Your task to perform on an android device: turn on sleep mode Image 0: 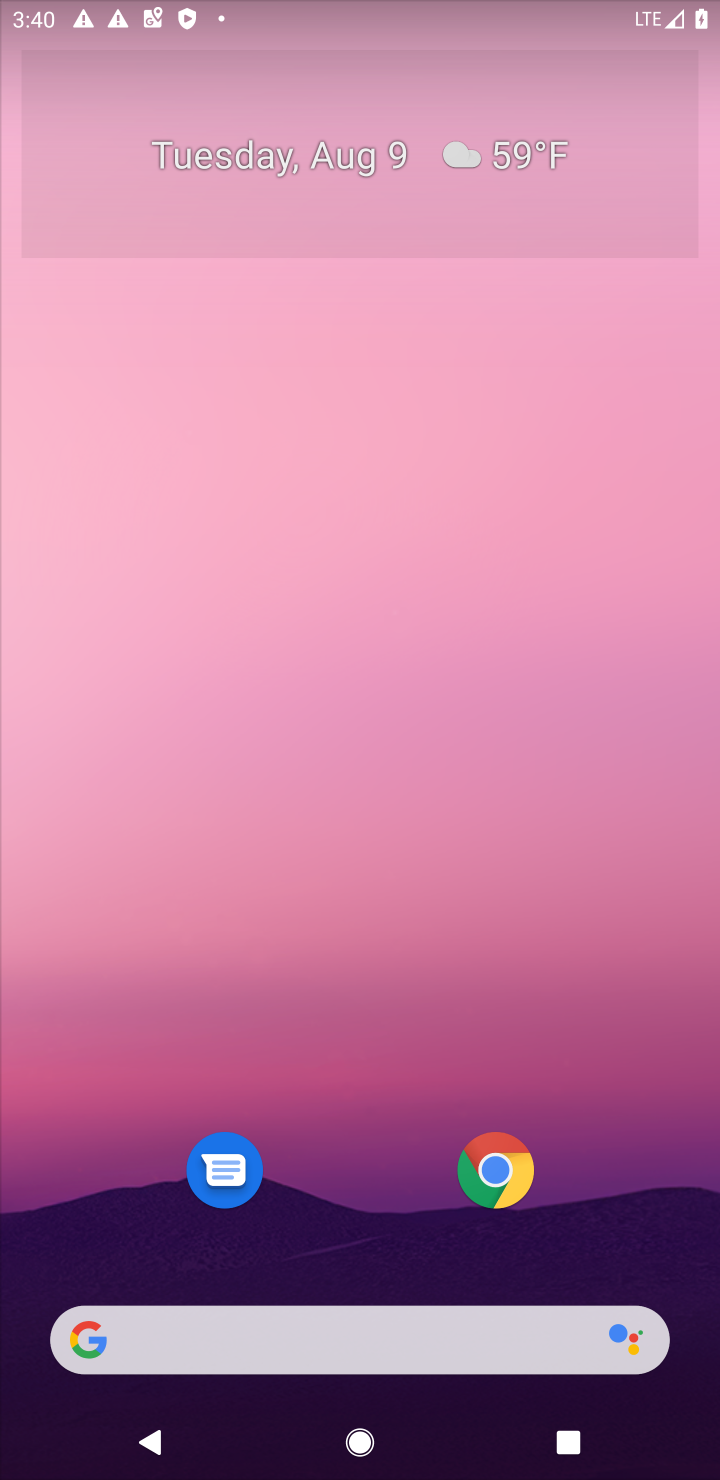
Step 0: press home button
Your task to perform on an android device: turn on sleep mode Image 1: 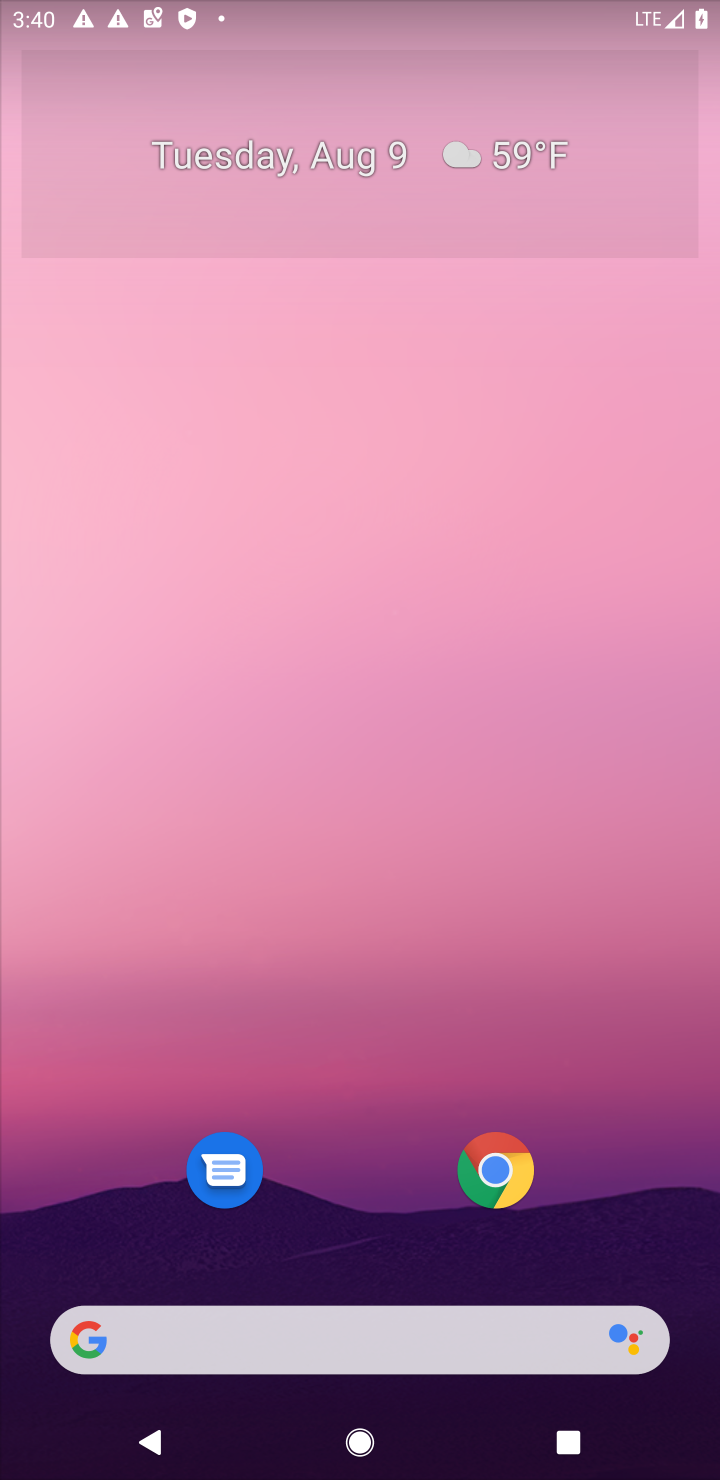
Step 1: drag from (396, 639) to (407, 38)
Your task to perform on an android device: turn on sleep mode Image 2: 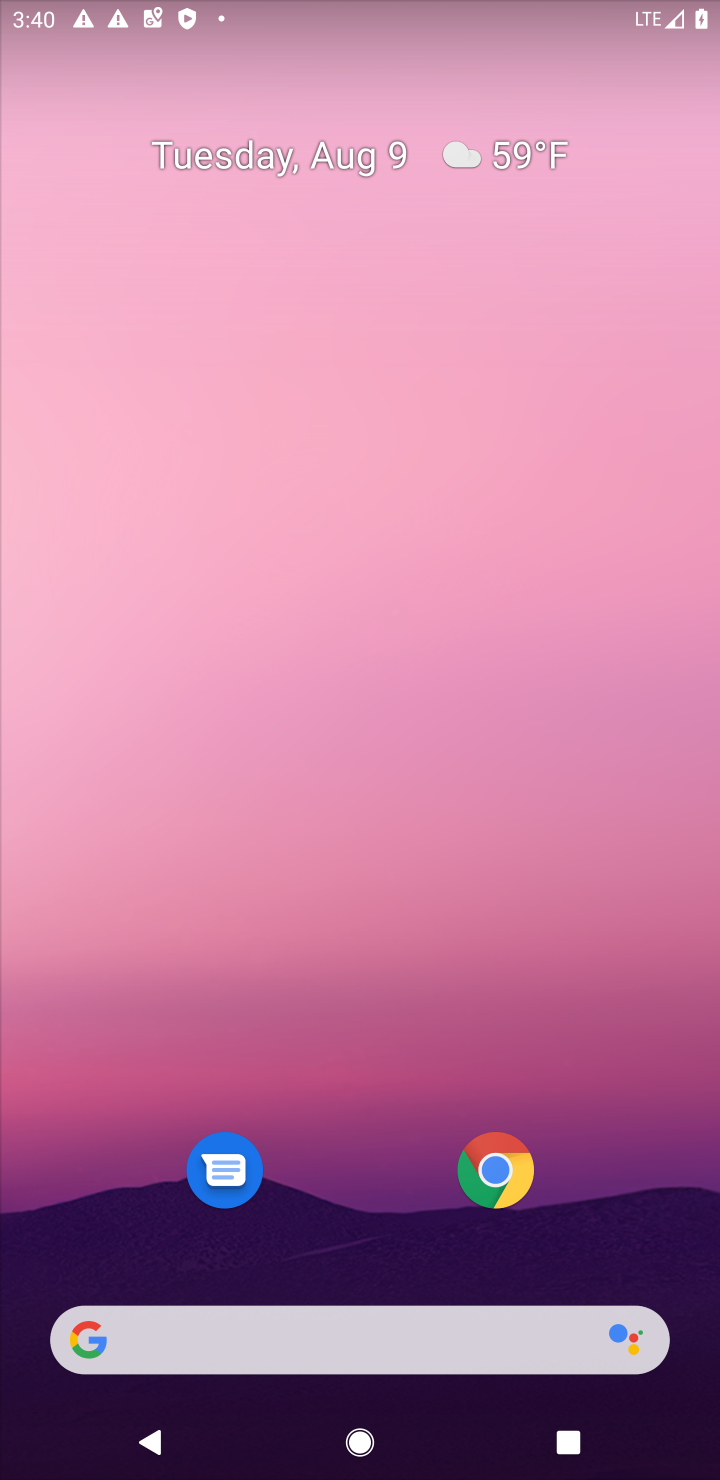
Step 2: drag from (366, 765) to (391, 1)
Your task to perform on an android device: turn on sleep mode Image 3: 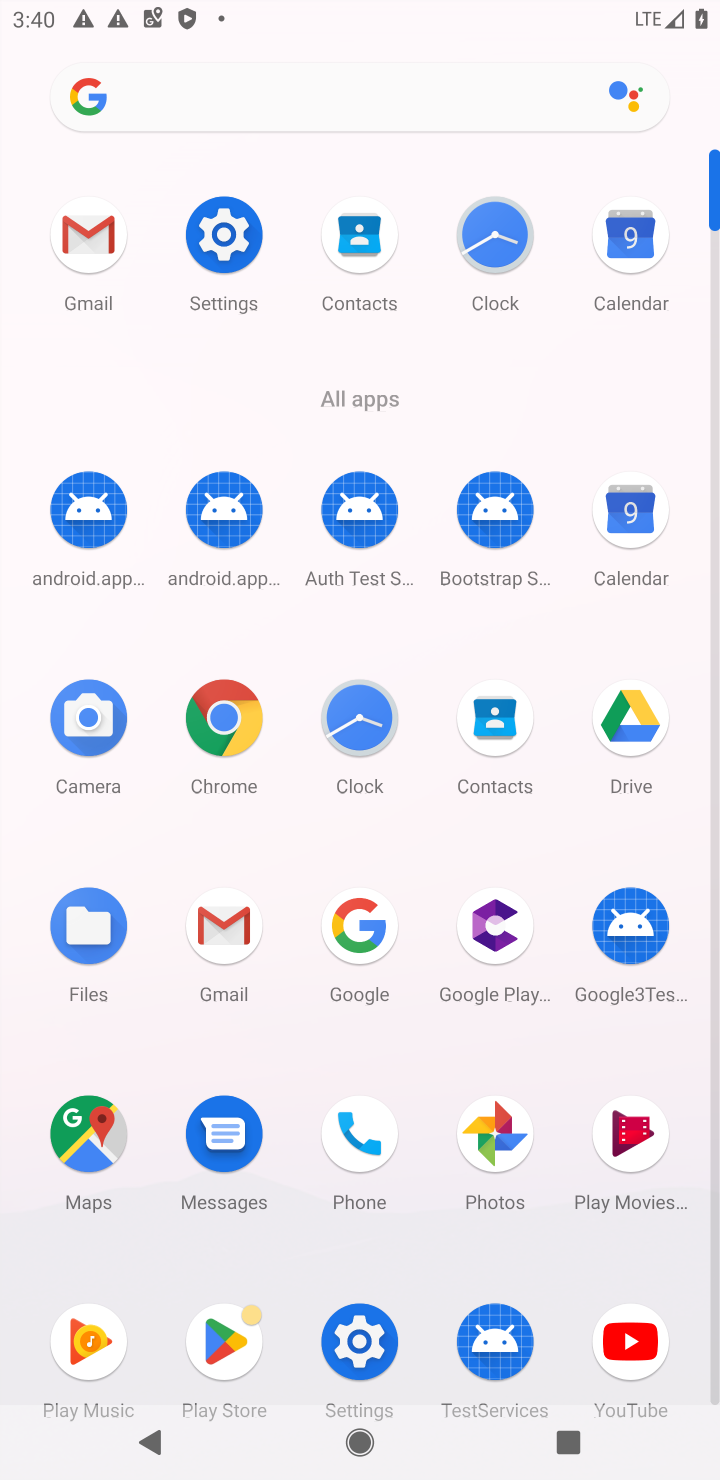
Step 3: click (231, 243)
Your task to perform on an android device: turn on sleep mode Image 4: 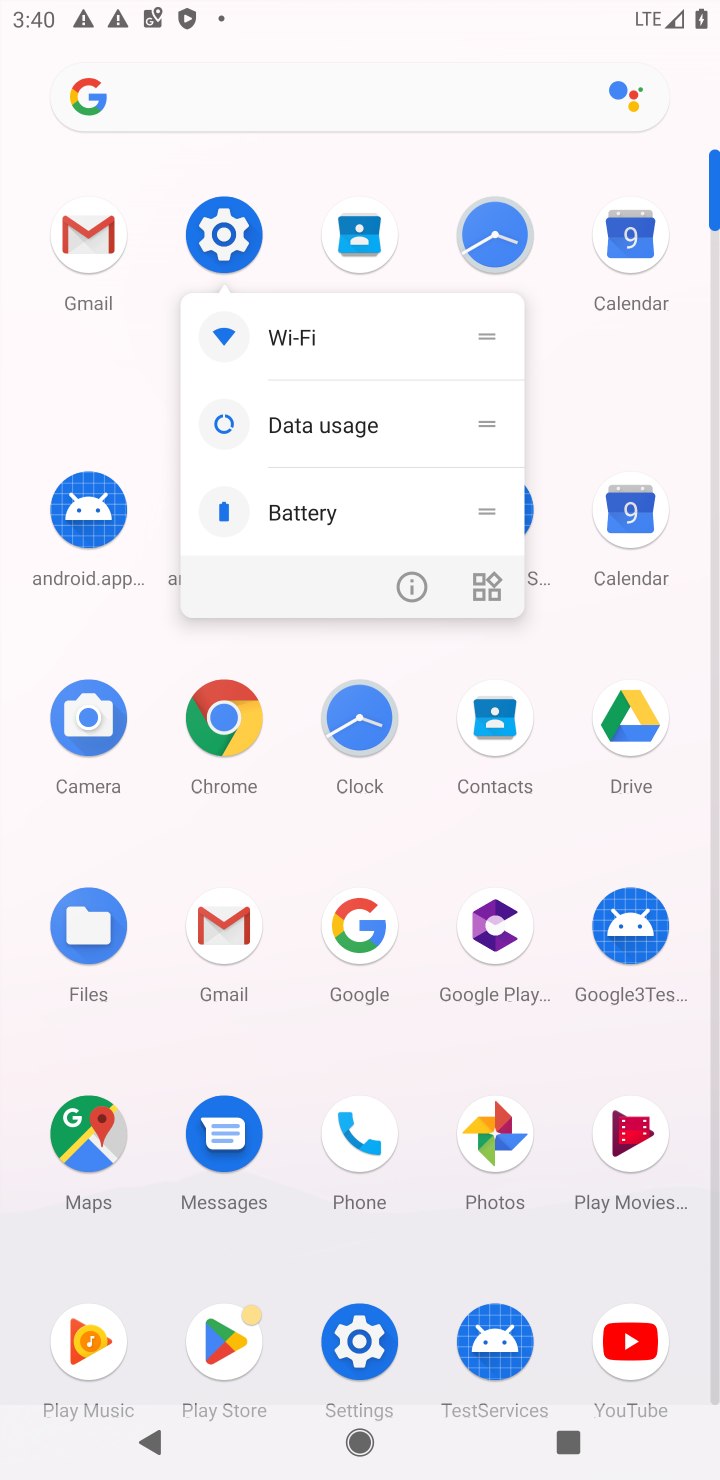
Step 4: click (184, 209)
Your task to perform on an android device: turn on sleep mode Image 5: 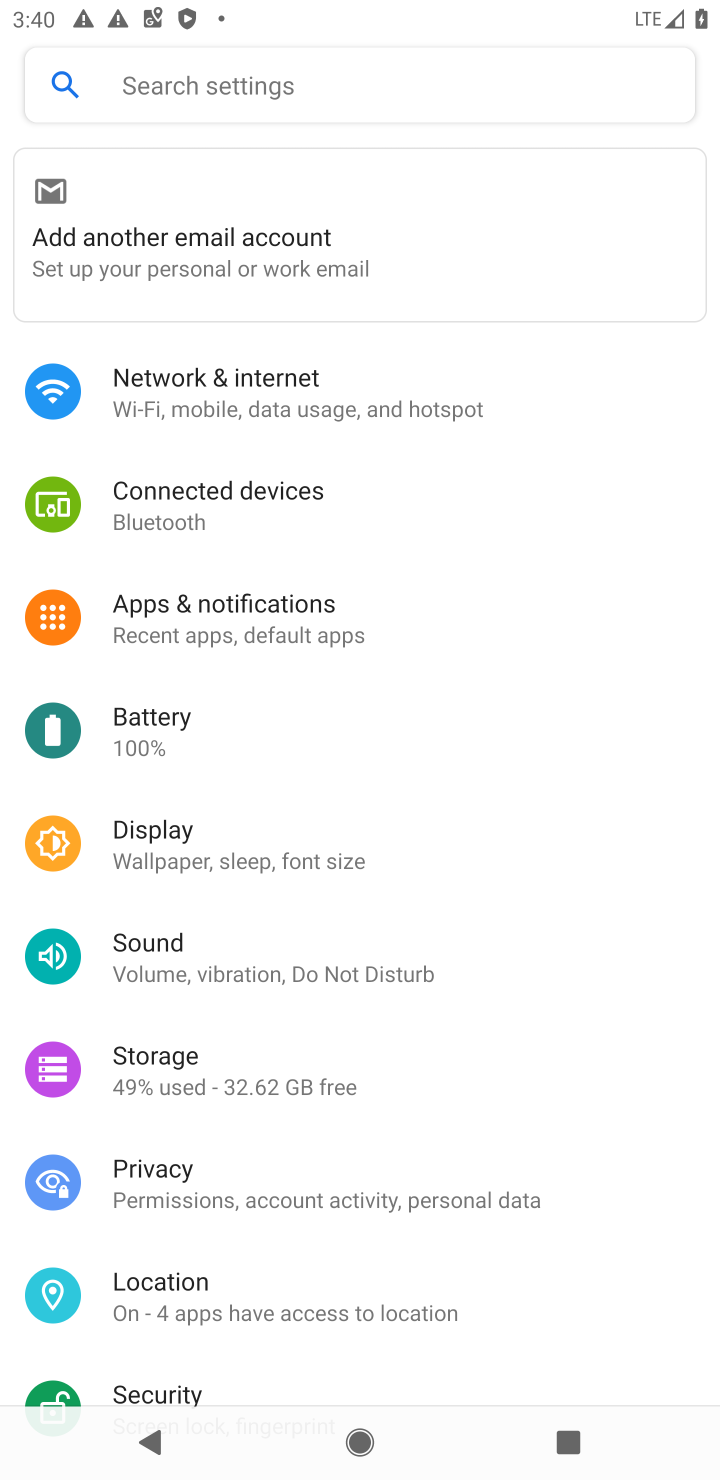
Step 5: click (141, 829)
Your task to perform on an android device: turn on sleep mode Image 6: 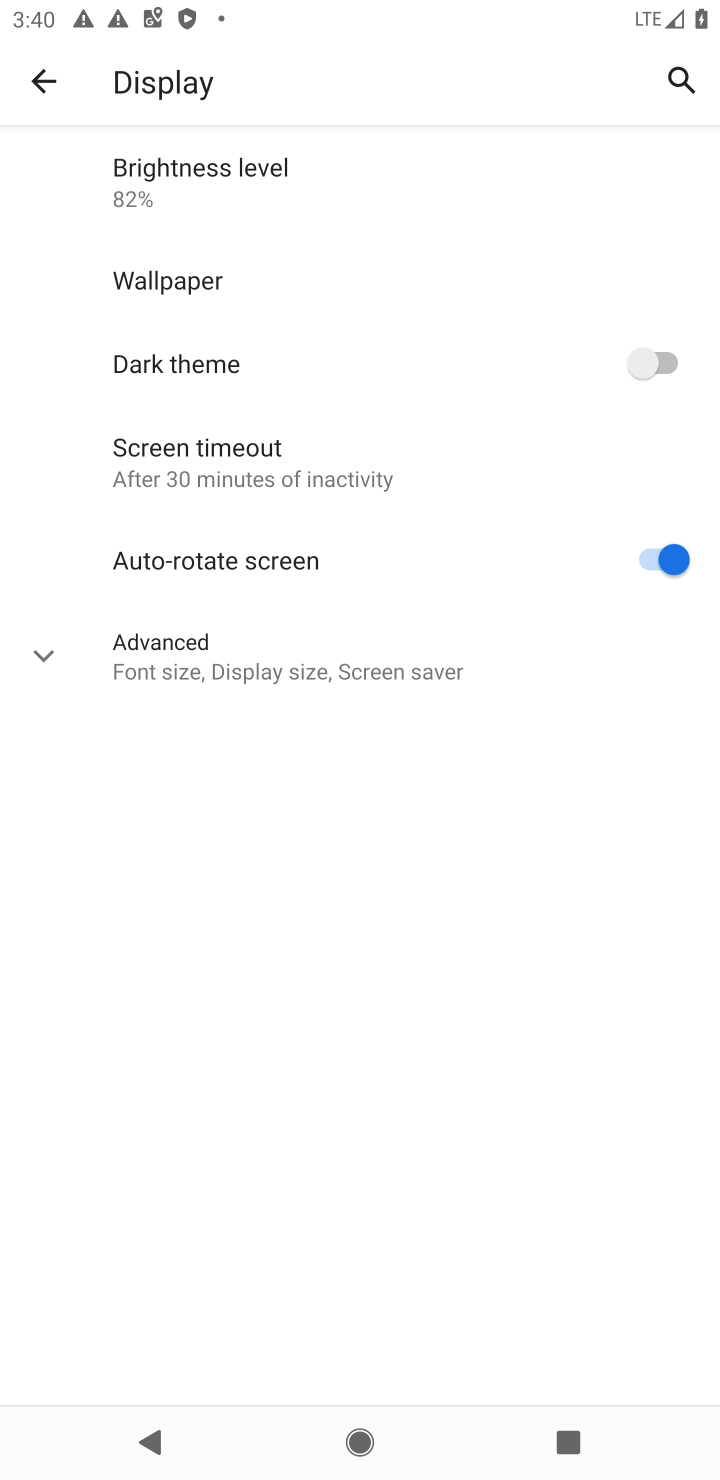
Step 6: task complete